Your task to perform on an android device: Open Google Image 0: 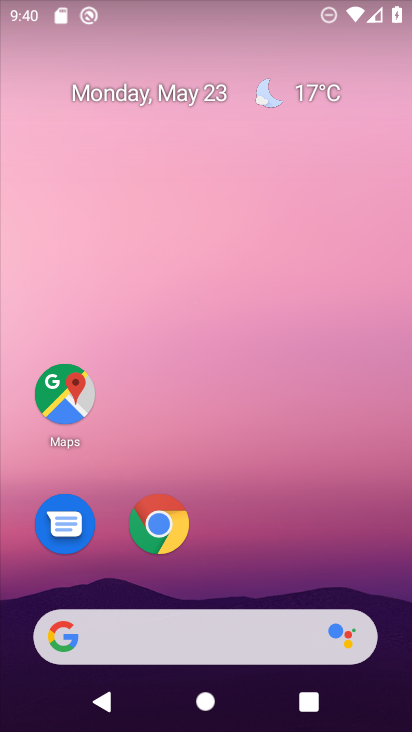
Step 0: drag from (228, 500) to (254, 100)
Your task to perform on an android device: Open Google Image 1: 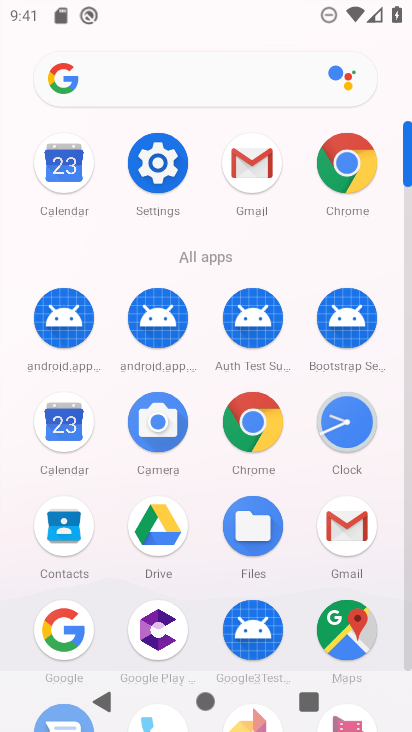
Step 1: click (73, 634)
Your task to perform on an android device: Open Google Image 2: 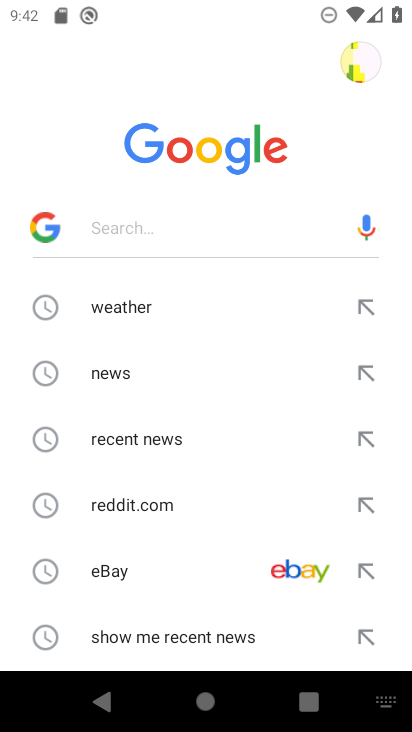
Step 2: task complete